Your task to perform on an android device: Open Google Chrome and click the shortcut for Amazon.com Image 0: 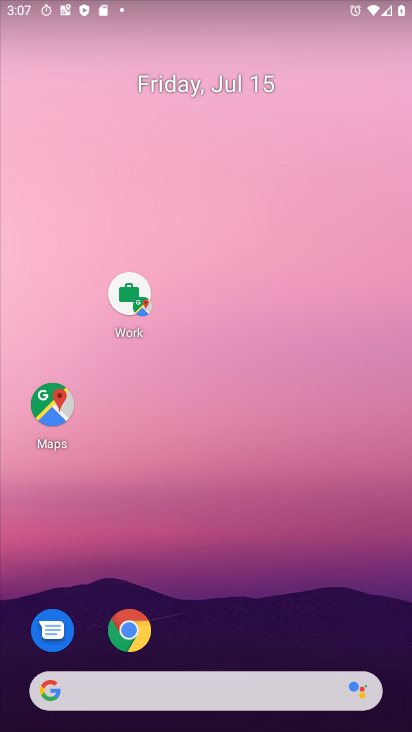
Step 0: click (135, 635)
Your task to perform on an android device: Open Google Chrome and click the shortcut for Amazon.com Image 1: 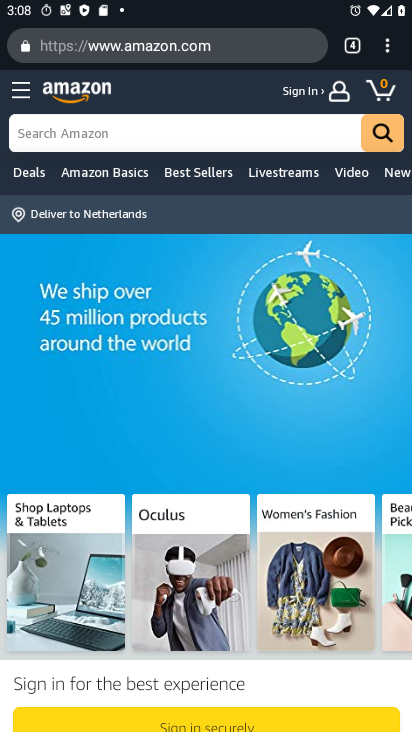
Step 1: task complete